Your task to perform on an android device: Search for "beats solo 3" on newegg.com, select the first entry, and add it to the cart. Image 0: 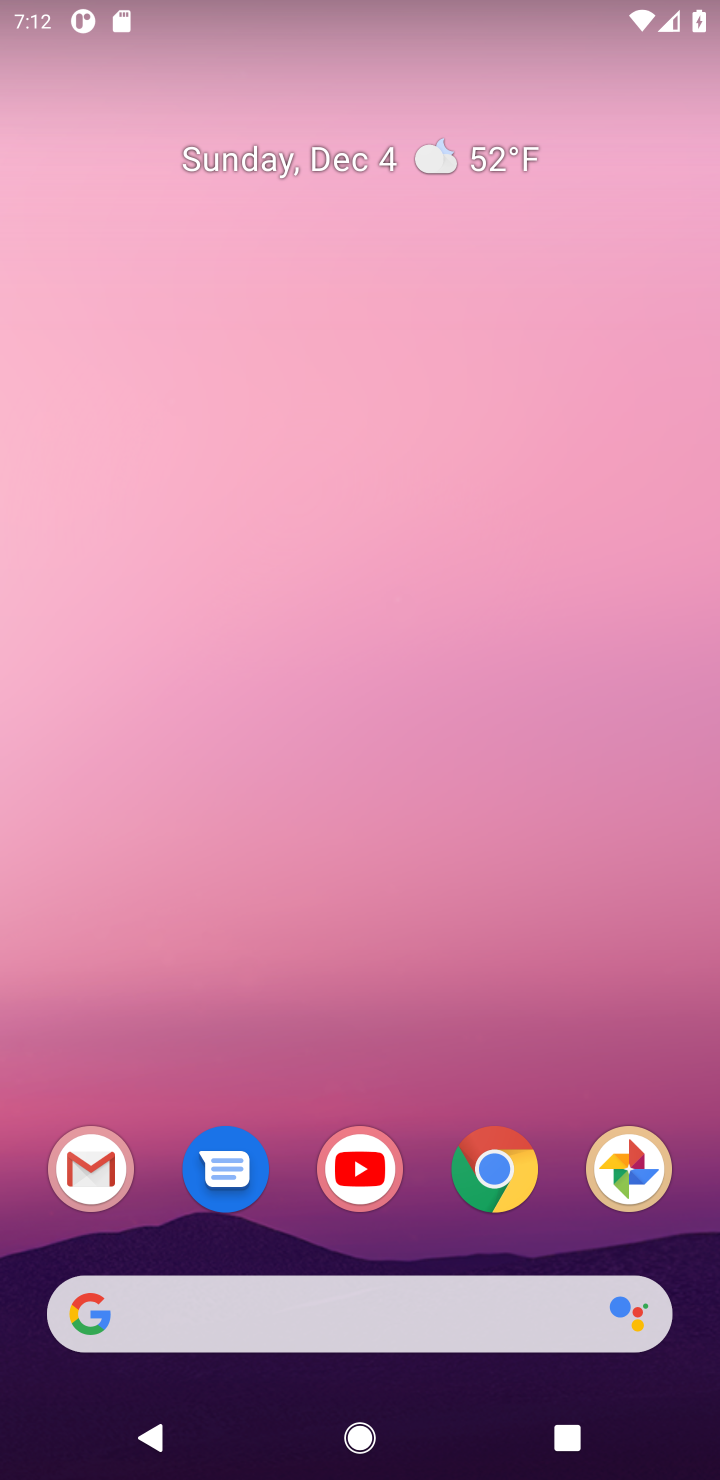
Step 0: click (495, 1185)
Your task to perform on an android device: Search for "beats solo 3" on newegg.com, select the first entry, and add it to the cart. Image 1: 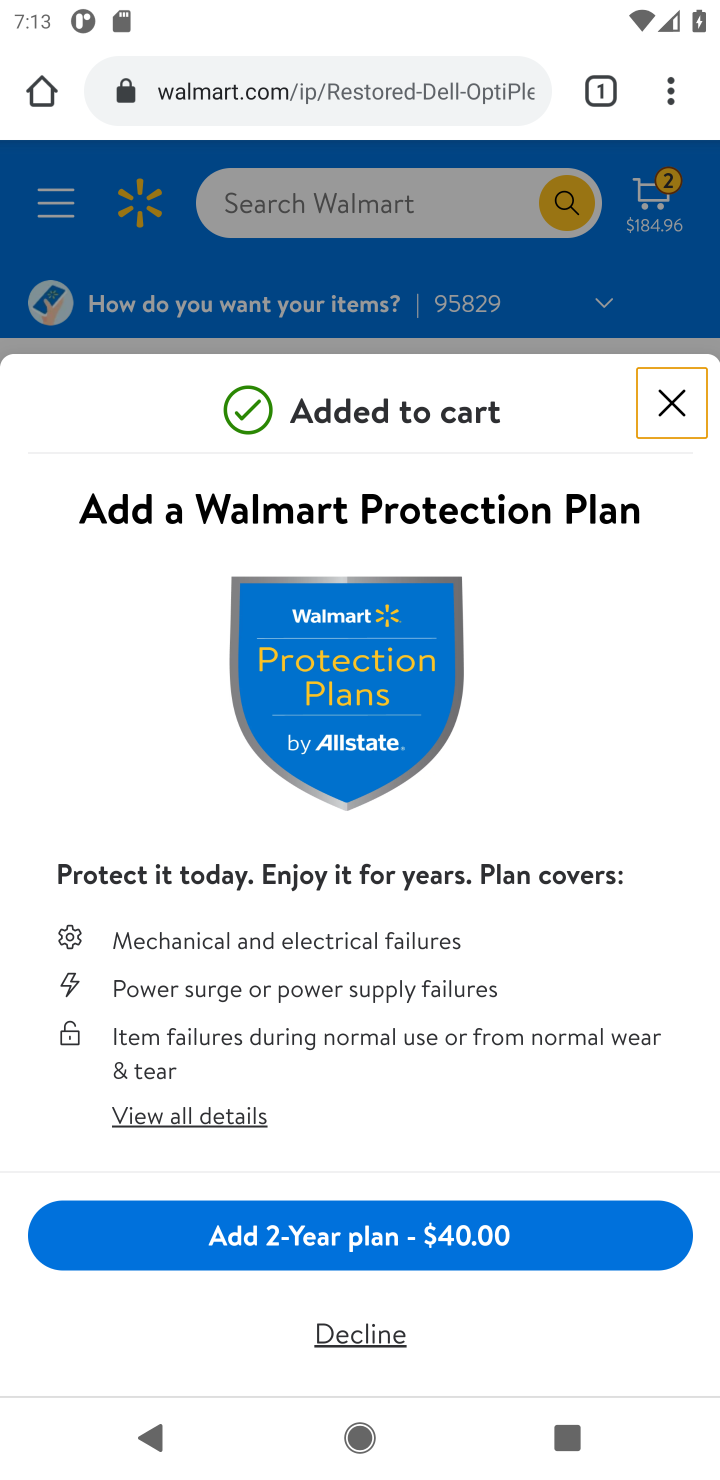
Step 1: click (668, 410)
Your task to perform on an android device: Search for "beats solo 3" on newegg.com, select the first entry, and add it to the cart. Image 2: 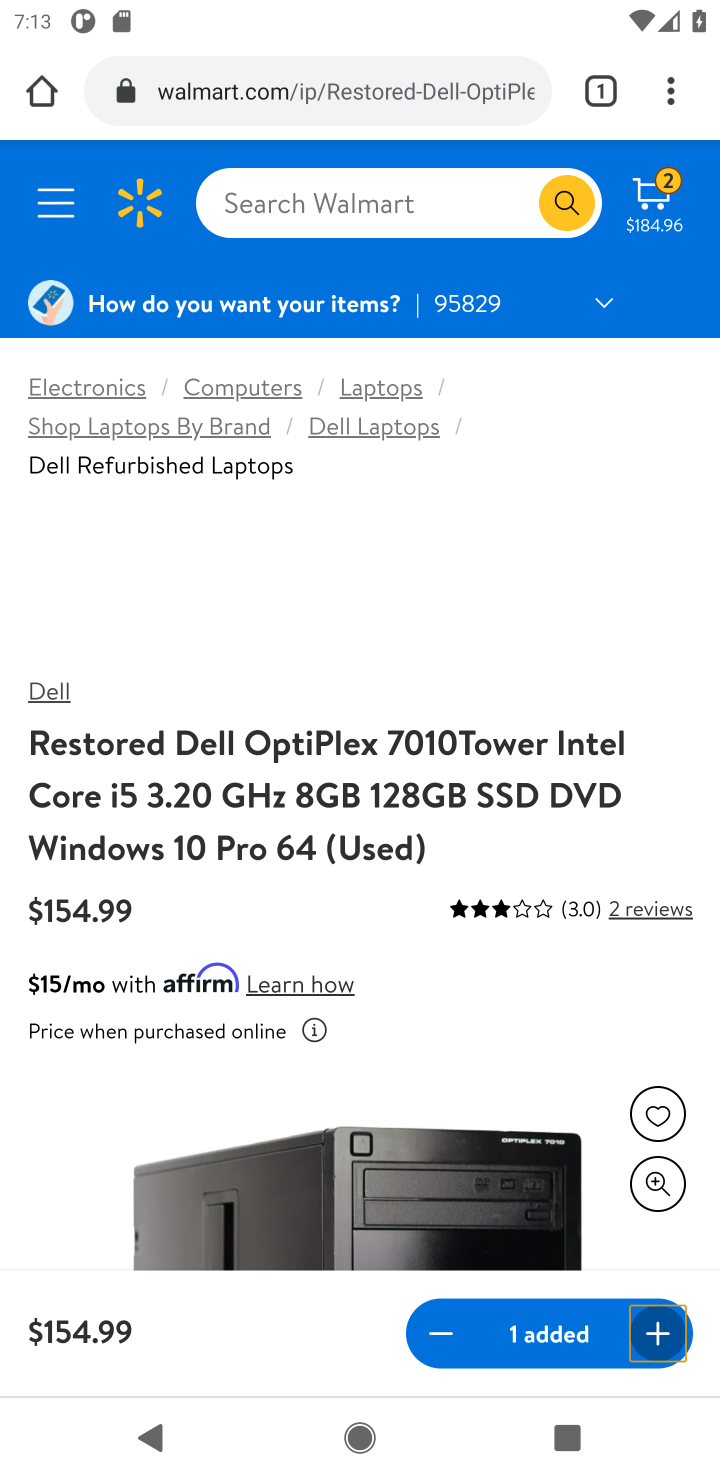
Step 2: click (353, 95)
Your task to perform on an android device: Search for "beats solo 3" on newegg.com, select the first entry, and add it to the cart. Image 3: 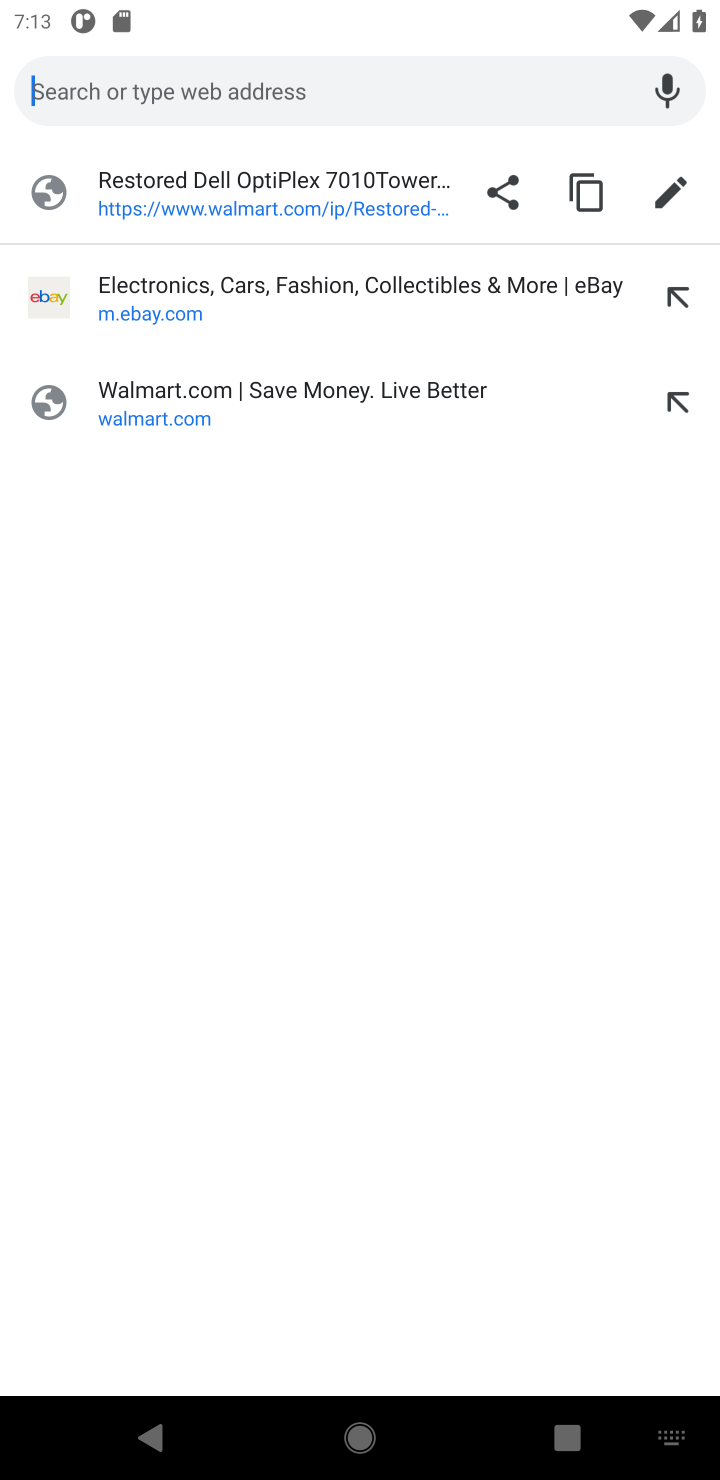
Step 3: type "newegg"
Your task to perform on an android device: Search for "beats solo 3" on newegg.com, select the first entry, and add it to the cart. Image 4: 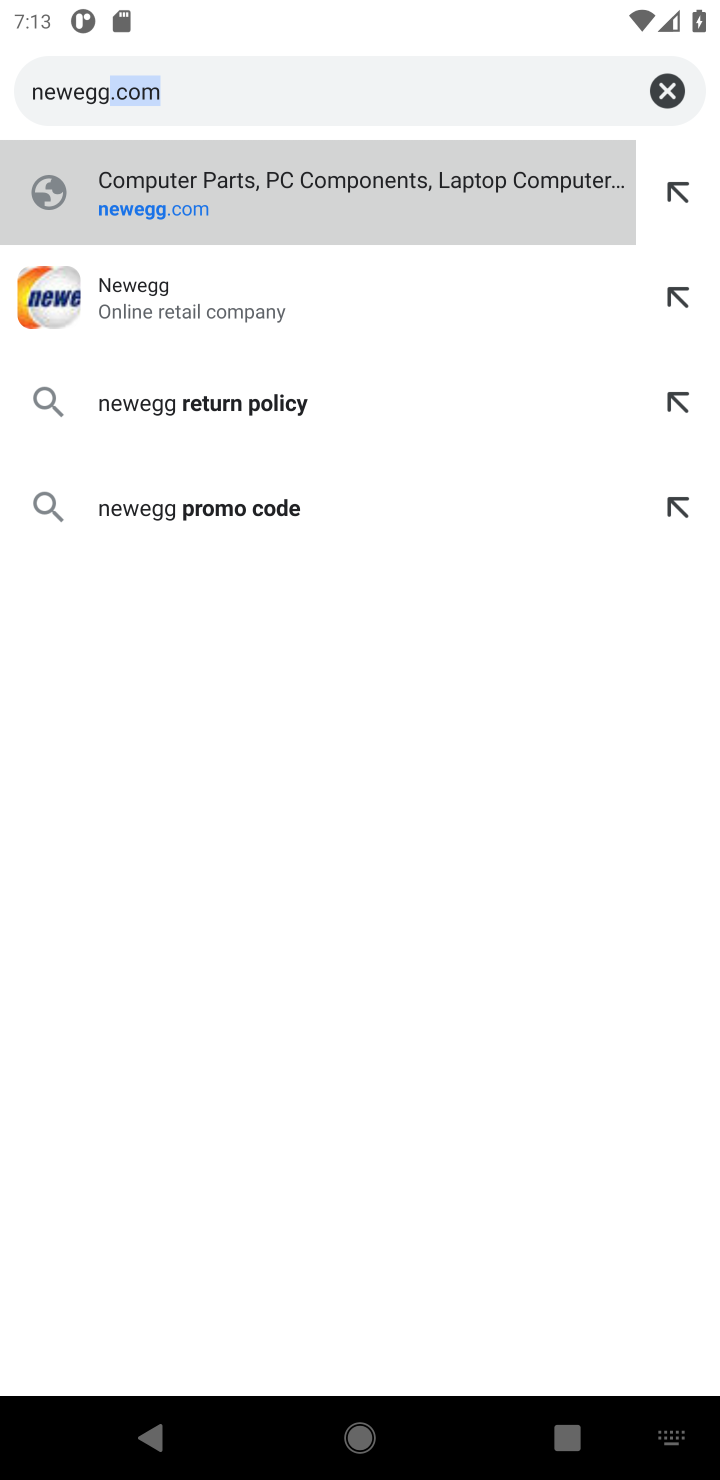
Step 4: click (197, 289)
Your task to perform on an android device: Search for "beats solo 3" on newegg.com, select the first entry, and add it to the cart. Image 5: 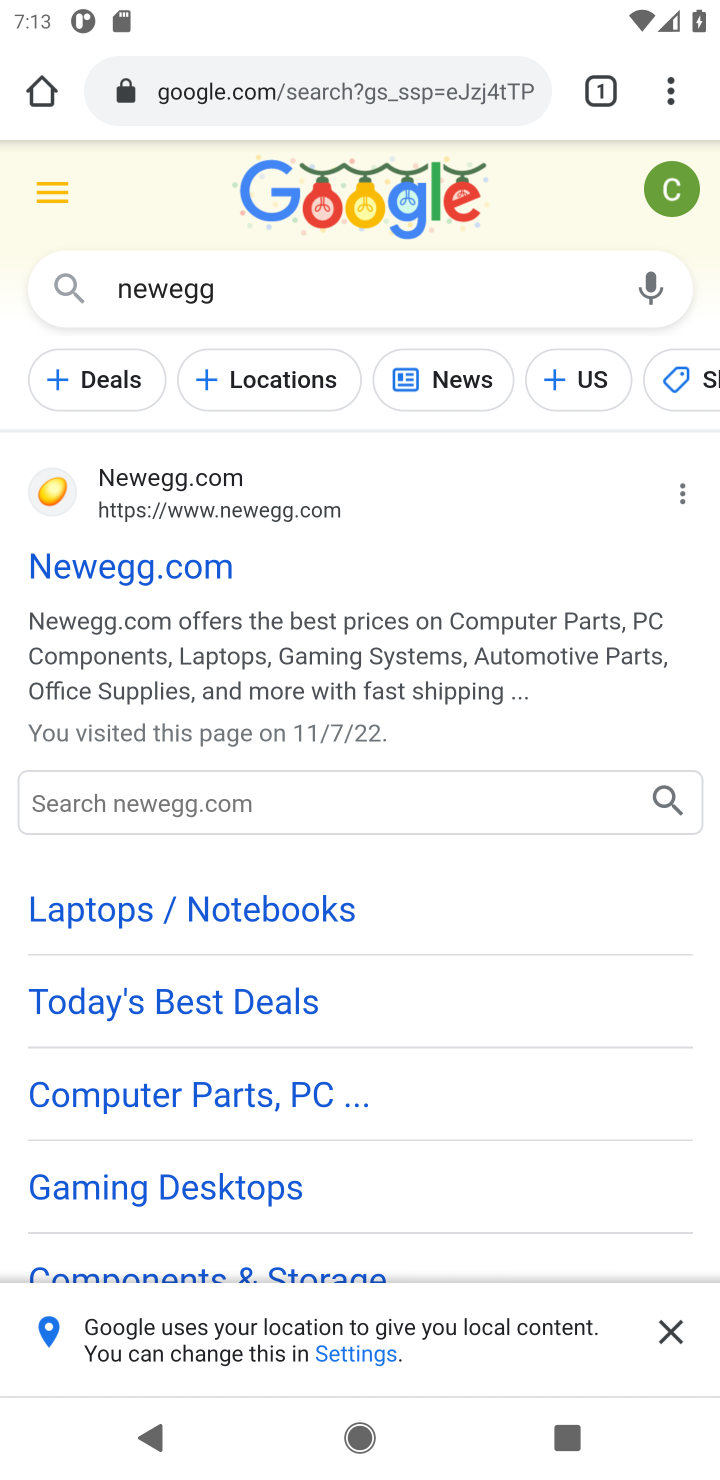
Step 5: click (88, 571)
Your task to perform on an android device: Search for "beats solo 3" on newegg.com, select the first entry, and add it to the cart. Image 6: 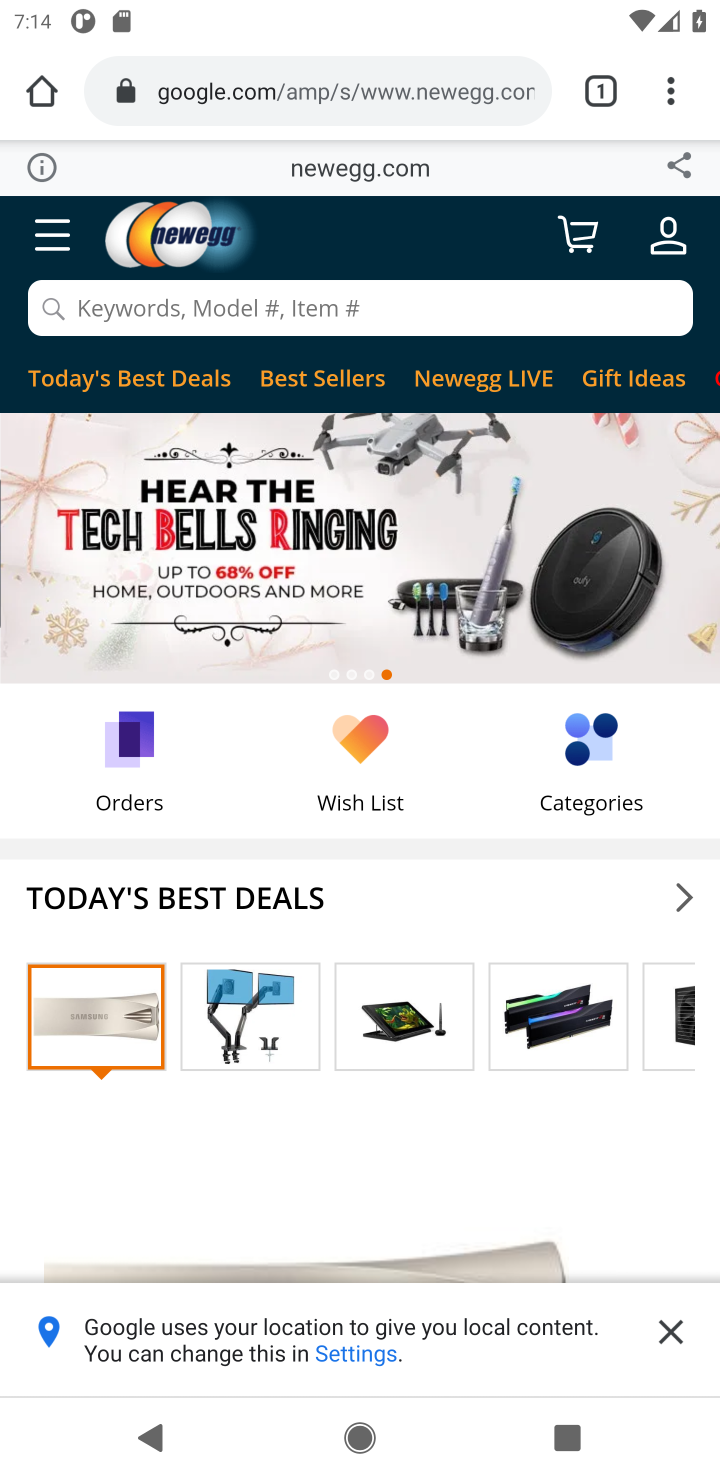
Step 6: click (362, 294)
Your task to perform on an android device: Search for "beats solo 3" on newegg.com, select the first entry, and add it to the cart. Image 7: 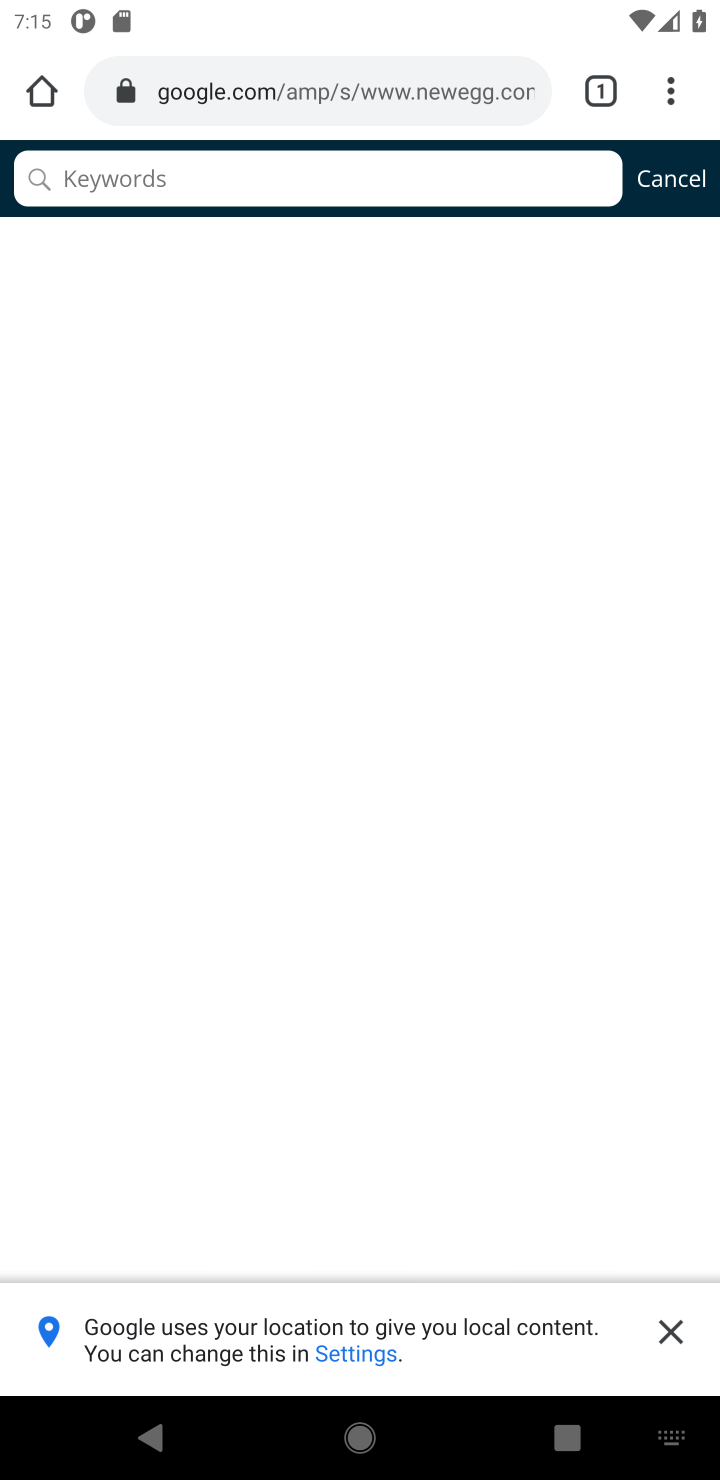
Step 7: type "beats solo 3"
Your task to perform on an android device: Search for "beats solo 3" on newegg.com, select the first entry, and add it to the cart. Image 8: 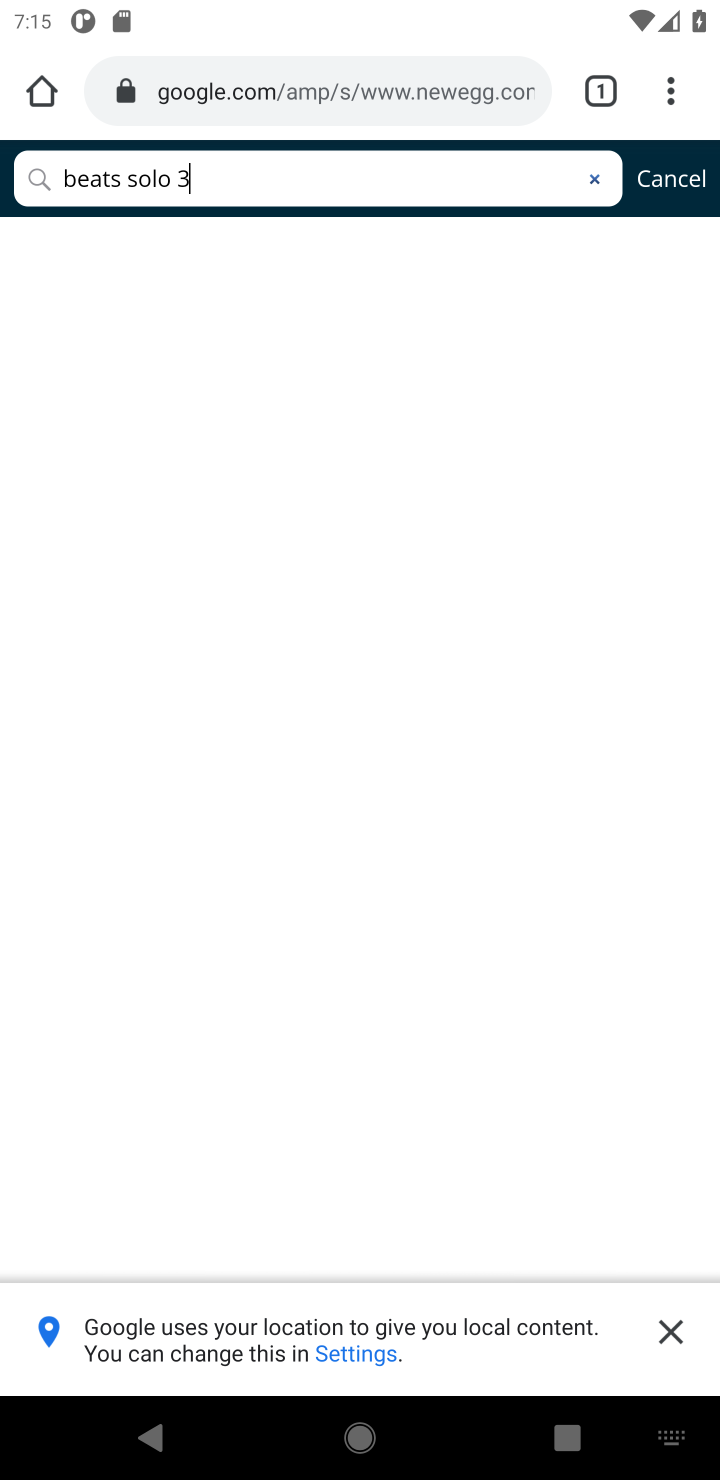
Step 8: task complete